Your task to perform on an android device: Toggle the flashlight Image 0: 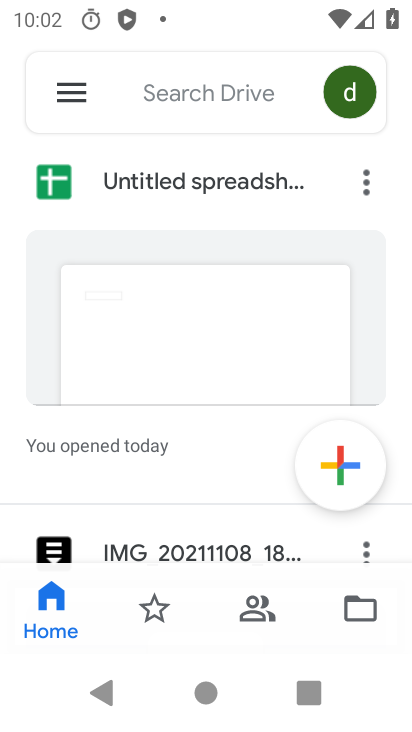
Step 0: drag from (253, 654) to (198, 127)
Your task to perform on an android device: Toggle the flashlight Image 1: 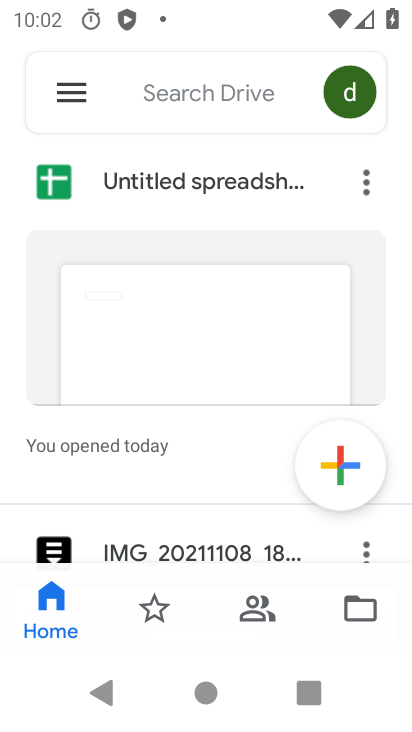
Step 1: task complete